Your task to perform on an android device: allow notifications from all sites in the chrome app Image 0: 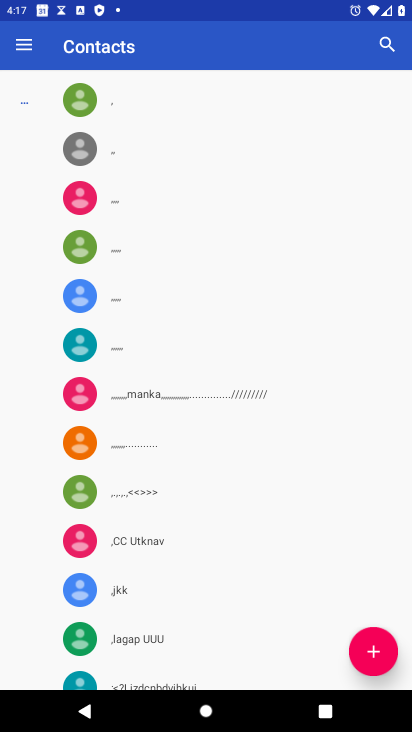
Step 0: press home button
Your task to perform on an android device: allow notifications from all sites in the chrome app Image 1: 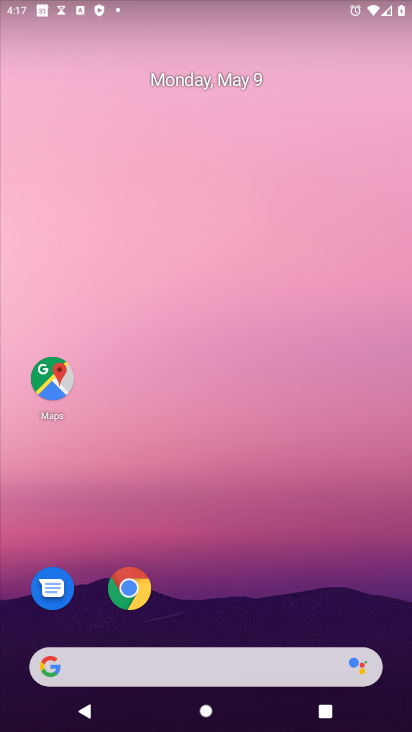
Step 1: click (124, 584)
Your task to perform on an android device: allow notifications from all sites in the chrome app Image 2: 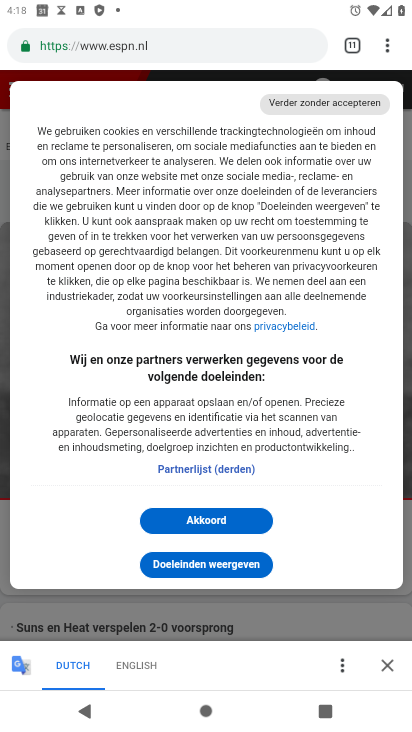
Step 2: click (382, 46)
Your task to perform on an android device: allow notifications from all sites in the chrome app Image 3: 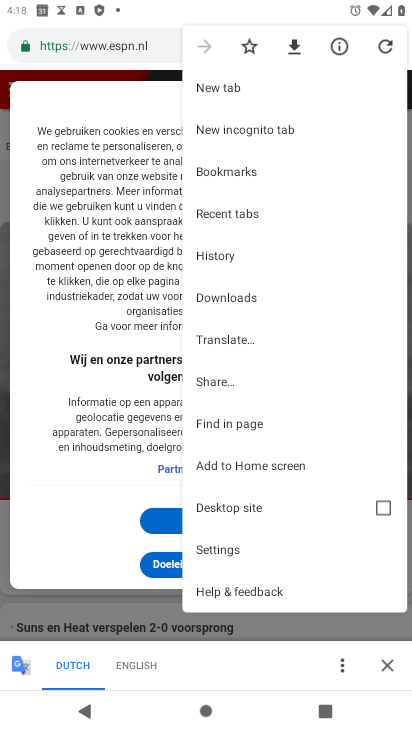
Step 3: click (240, 543)
Your task to perform on an android device: allow notifications from all sites in the chrome app Image 4: 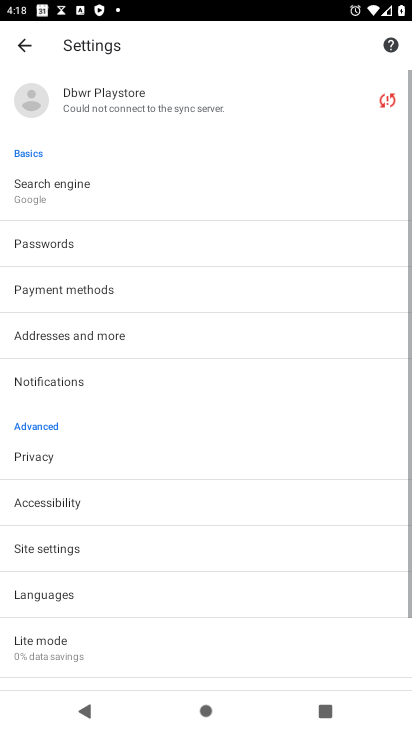
Step 4: click (79, 529)
Your task to perform on an android device: allow notifications from all sites in the chrome app Image 5: 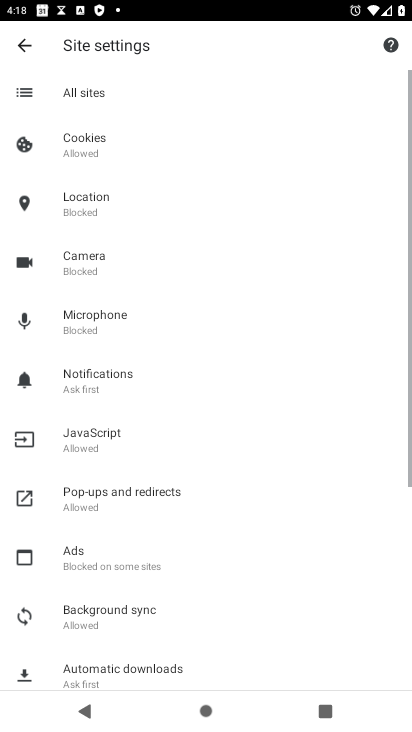
Step 5: click (159, 368)
Your task to perform on an android device: allow notifications from all sites in the chrome app Image 6: 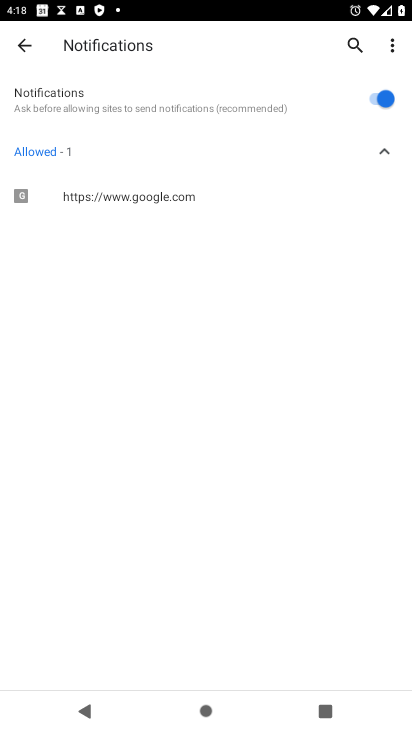
Step 6: click (187, 204)
Your task to perform on an android device: allow notifications from all sites in the chrome app Image 7: 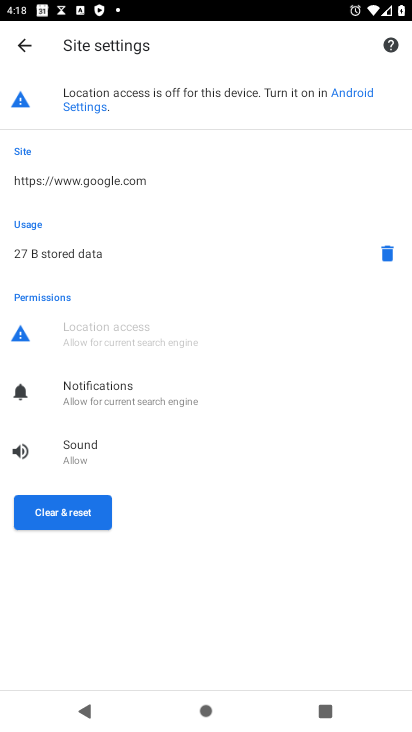
Step 7: task complete